Your task to perform on an android device: Open the Play Movies app and select the watchlist tab. Image 0: 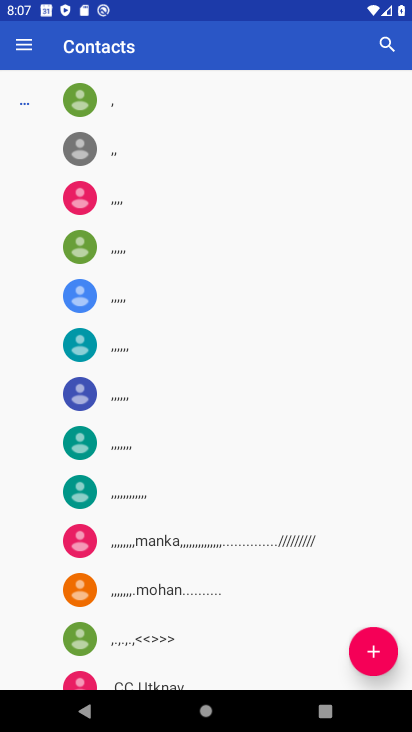
Step 0: press home button
Your task to perform on an android device: Open the Play Movies app and select the watchlist tab. Image 1: 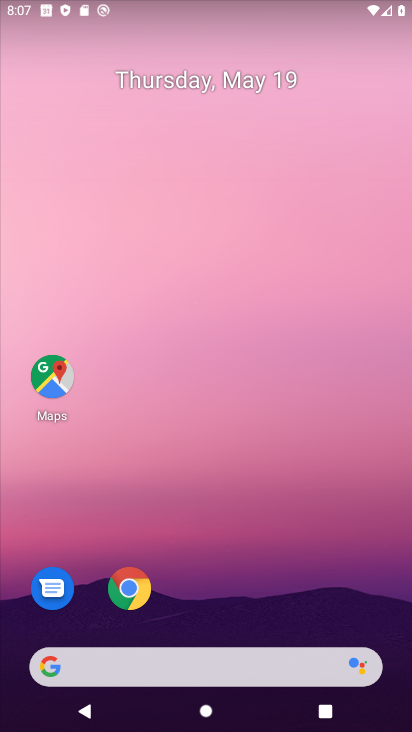
Step 1: drag from (220, 728) to (234, 5)
Your task to perform on an android device: Open the Play Movies app and select the watchlist tab. Image 2: 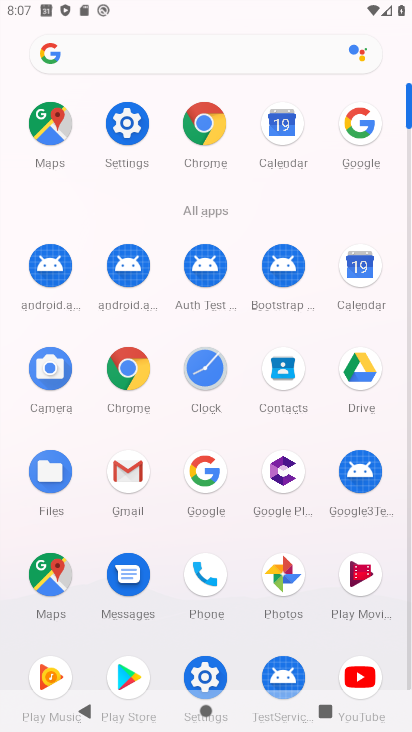
Step 2: click (369, 574)
Your task to perform on an android device: Open the Play Movies app and select the watchlist tab. Image 3: 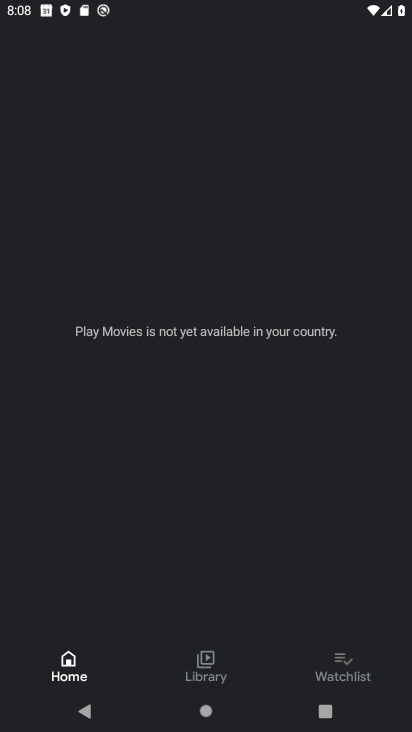
Step 3: task complete